Your task to perform on an android device: set an alarm Image 0: 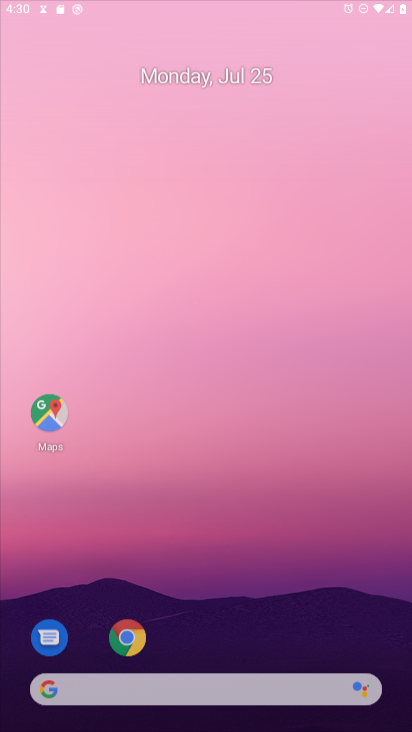
Step 0: press home button
Your task to perform on an android device: set an alarm Image 1: 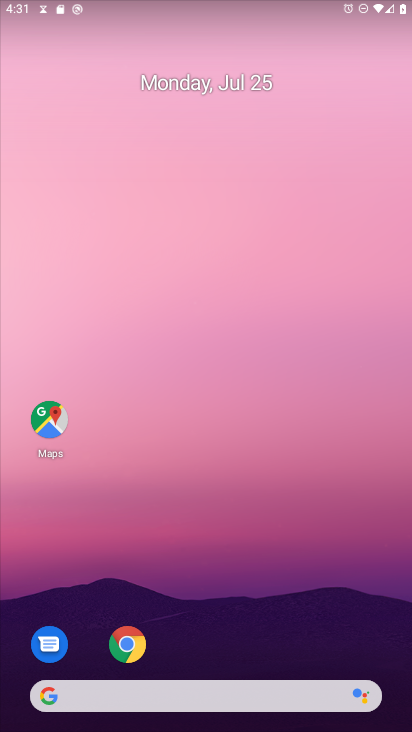
Step 1: press home button
Your task to perform on an android device: set an alarm Image 2: 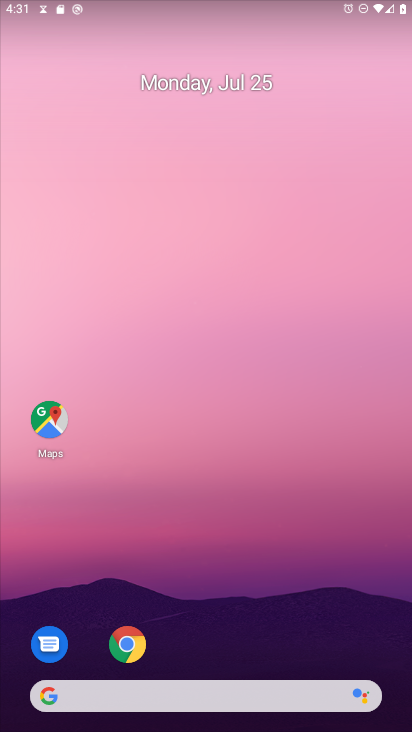
Step 2: drag from (271, 627) to (241, 80)
Your task to perform on an android device: set an alarm Image 3: 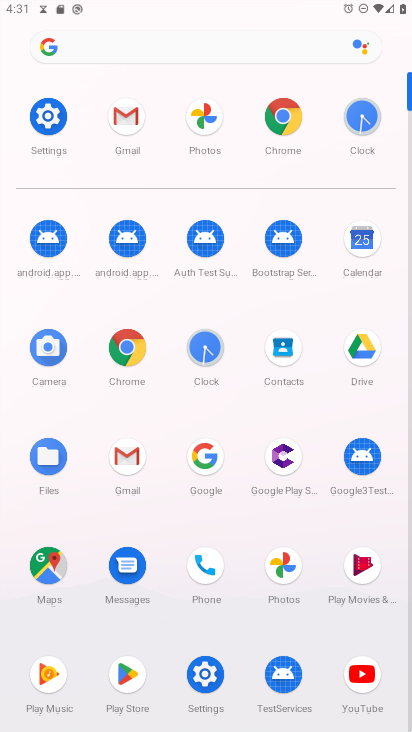
Step 3: click (212, 347)
Your task to perform on an android device: set an alarm Image 4: 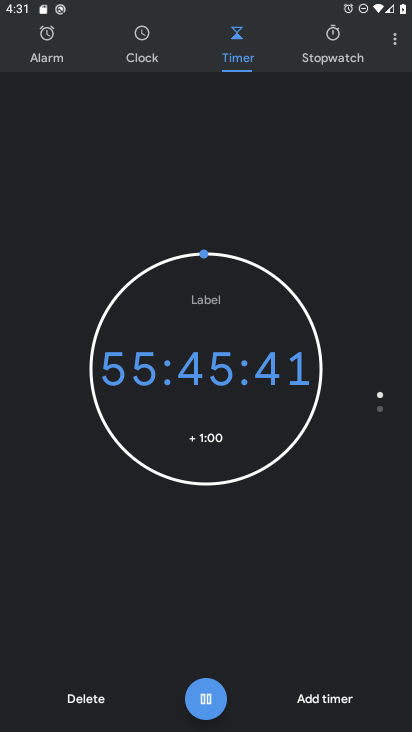
Step 4: click (47, 47)
Your task to perform on an android device: set an alarm Image 5: 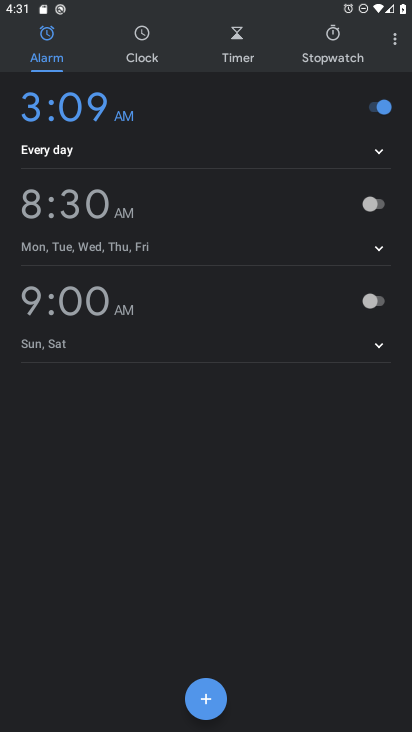
Step 5: click (204, 700)
Your task to perform on an android device: set an alarm Image 6: 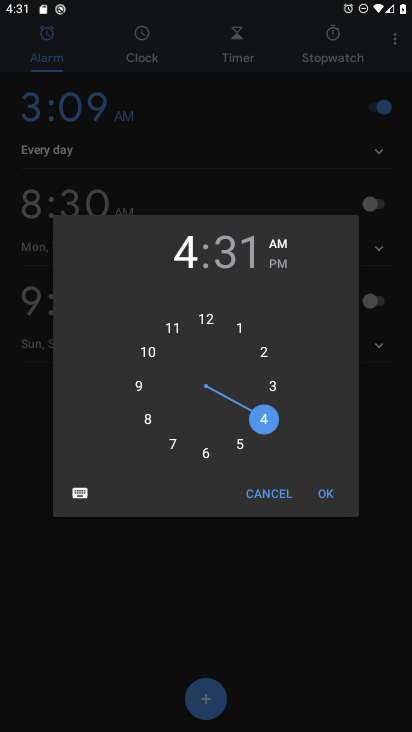
Step 6: click (209, 441)
Your task to perform on an android device: set an alarm Image 7: 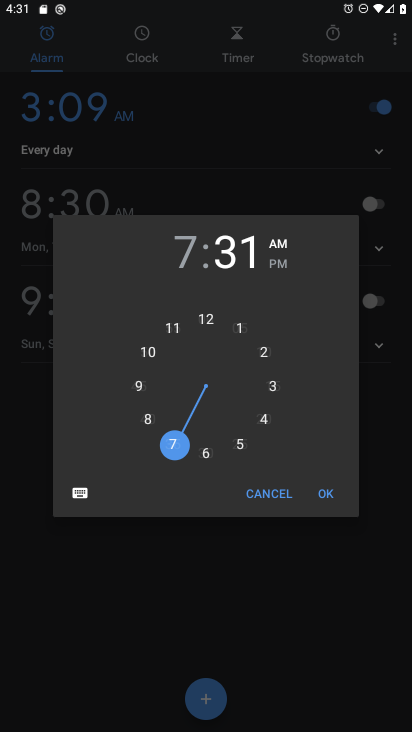
Step 7: click (328, 493)
Your task to perform on an android device: set an alarm Image 8: 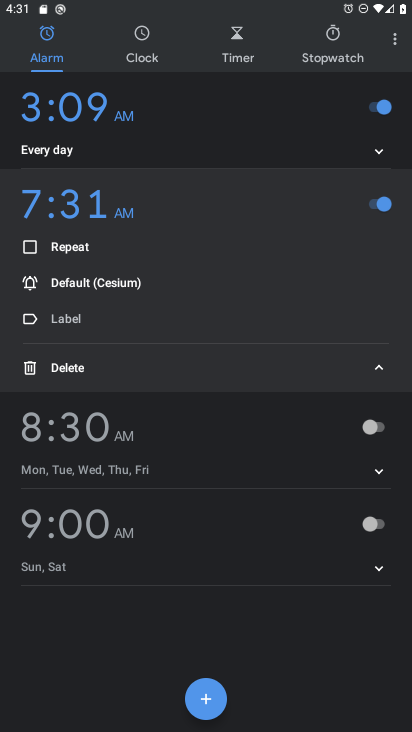
Step 8: task complete